Your task to perform on an android device: toggle airplane mode Image 0: 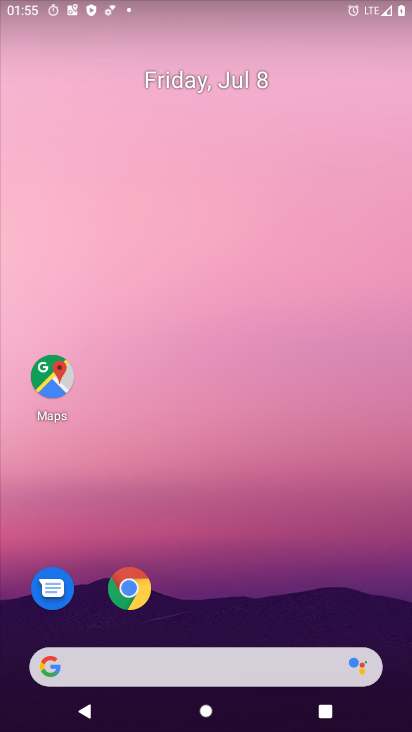
Step 0: drag from (288, 562) to (320, 19)
Your task to perform on an android device: toggle airplane mode Image 1: 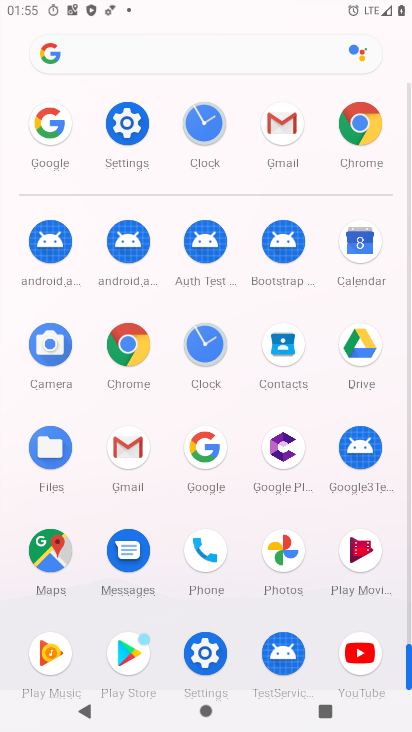
Step 1: click (123, 114)
Your task to perform on an android device: toggle airplane mode Image 2: 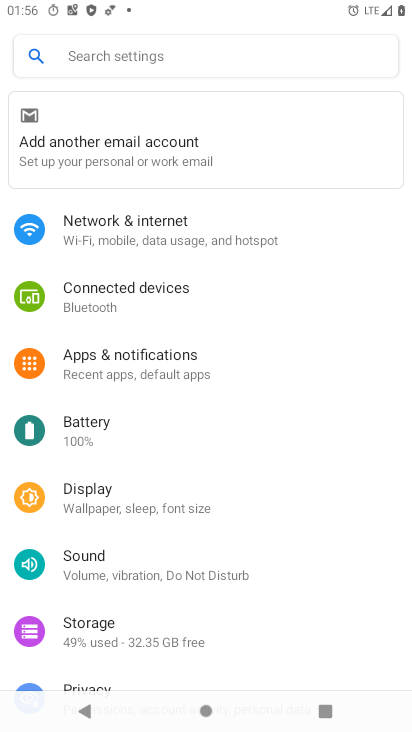
Step 2: click (133, 236)
Your task to perform on an android device: toggle airplane mode Image 3: 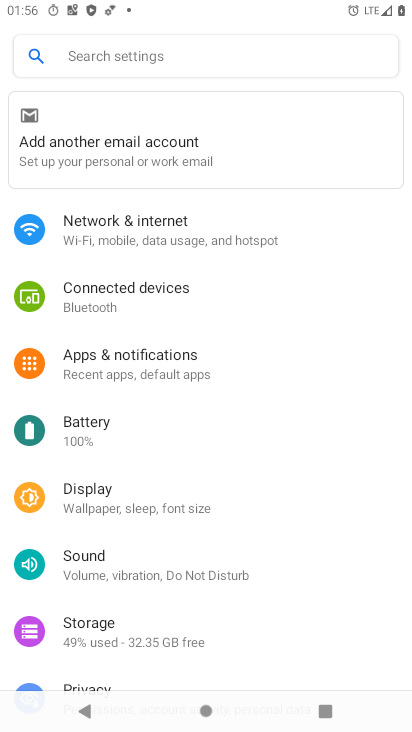
Step 3: click (133, 236)
Your task to perform on an android device: toggle airplane mode Image 4: 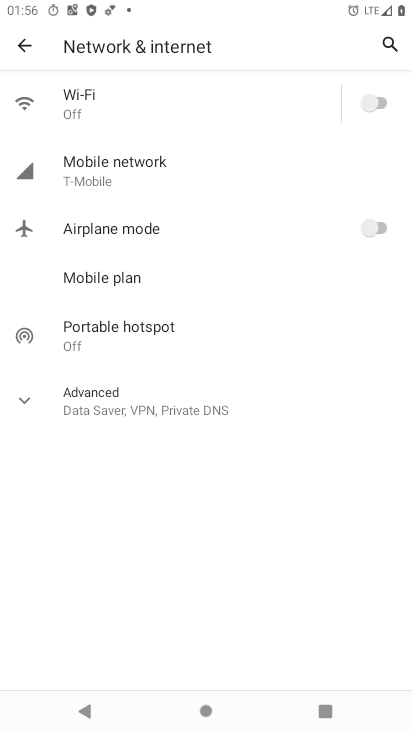
Step 4: click (143, 247)
Your task to perform on an android device: toggle airplane mode Image 5: 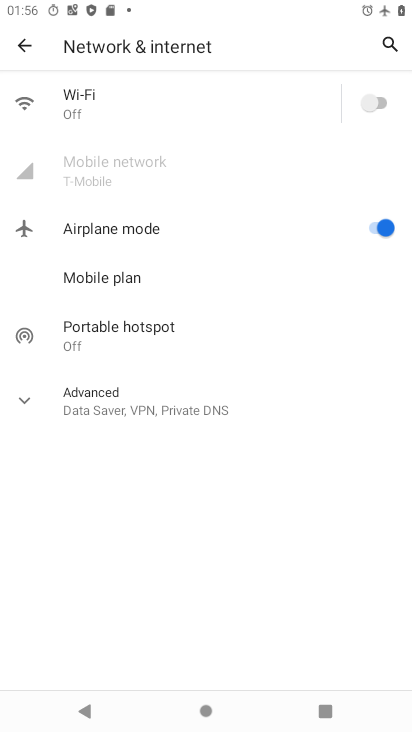
Step 5: task complete